Your task to perform on an android device: clear history in the chrome app Image 0: 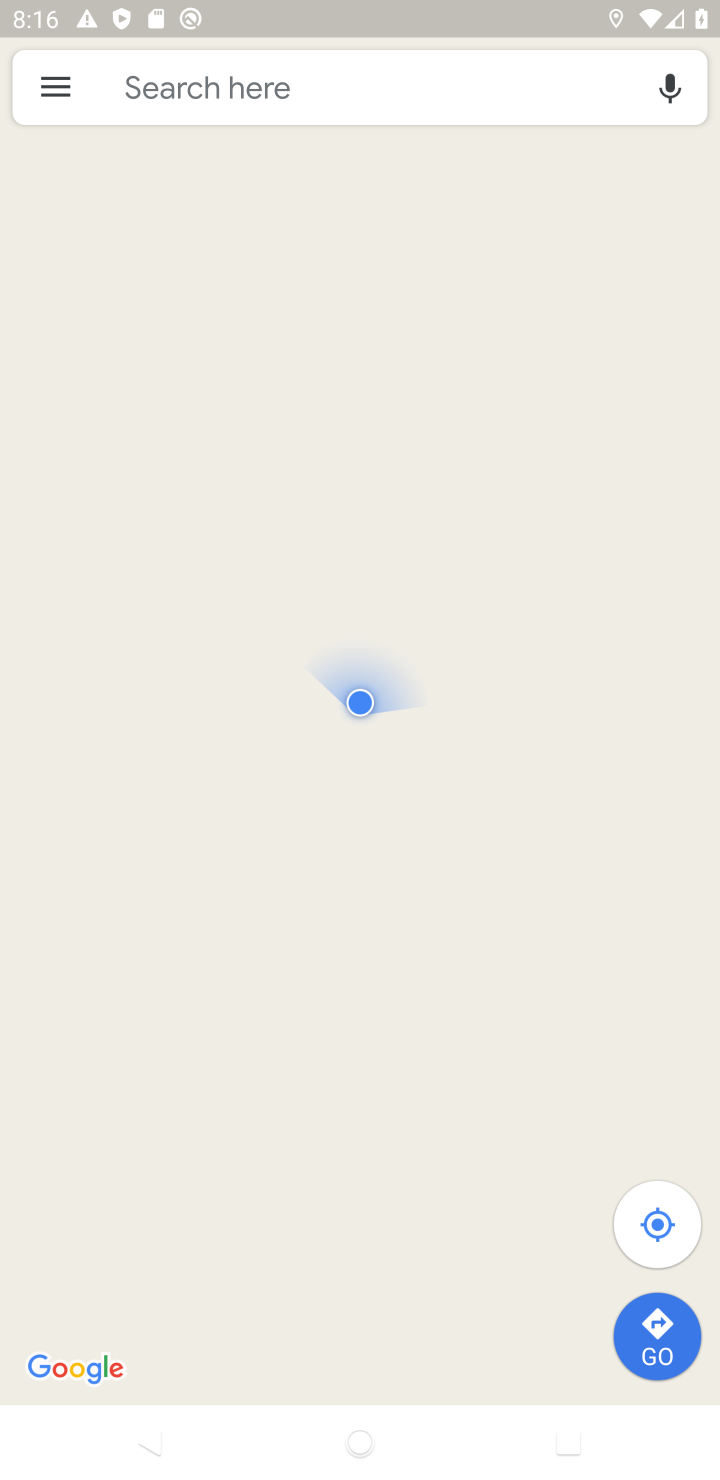
Step 0: press home button
Your task to perform on an android device: clear history in the chrome app Image 1: 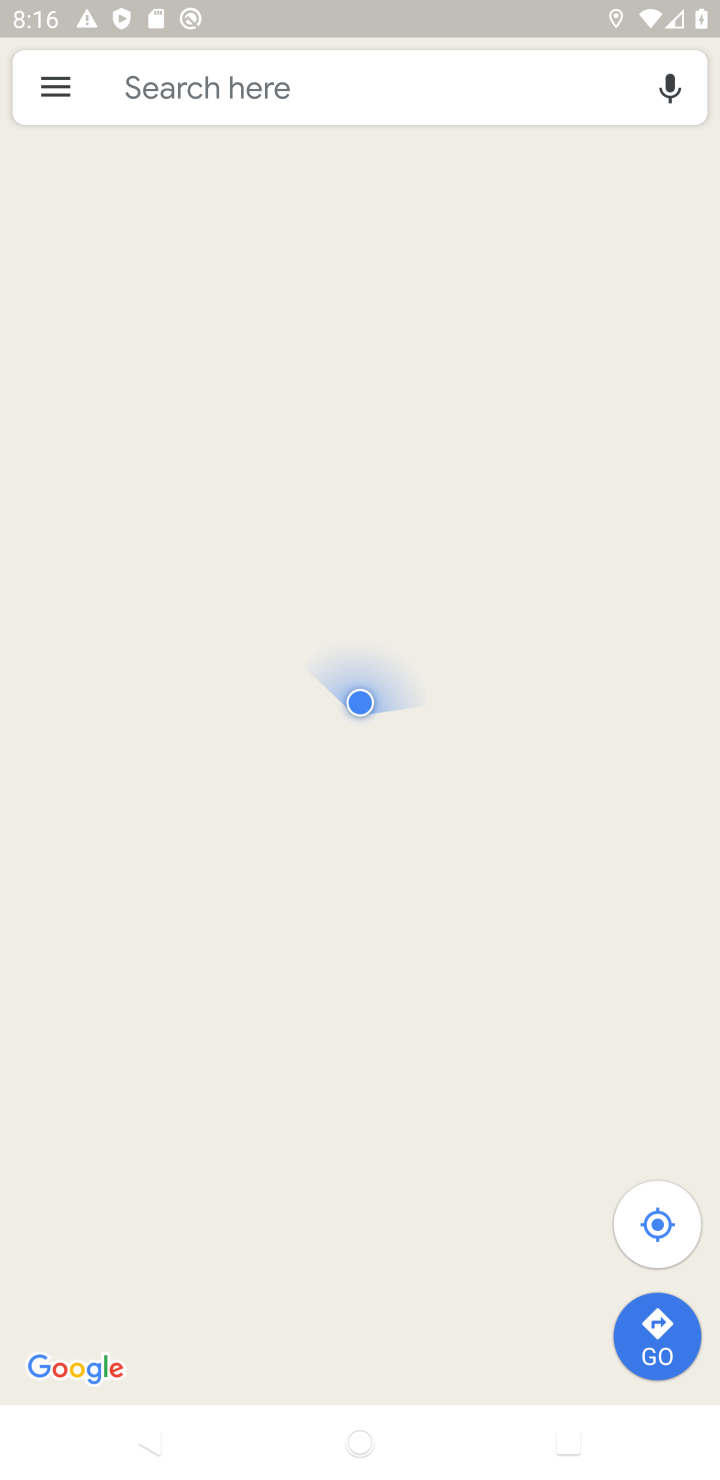
Step 1: press home button
Your task to perform on an android device: clear history in the chrome app Image 2: 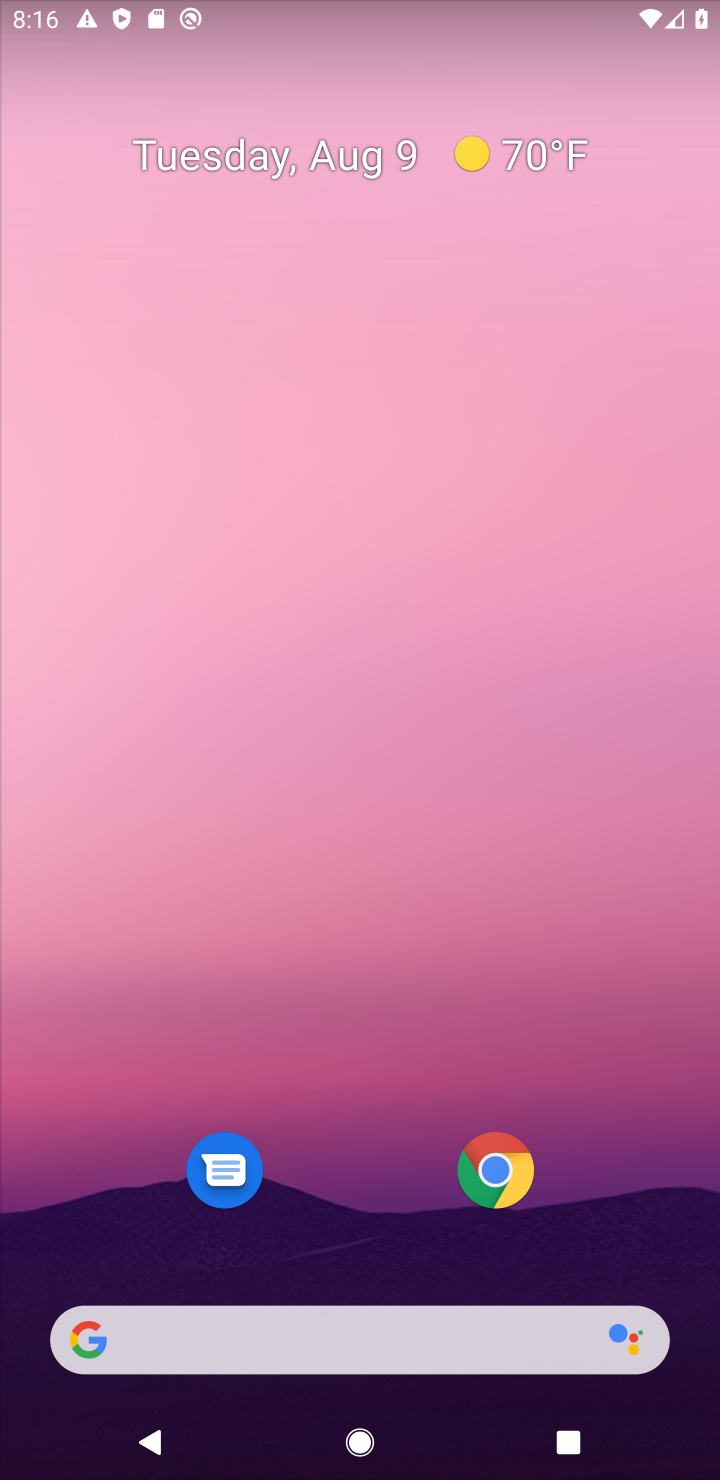
Step 2: drag from (339, 1226) to (557, 359)
Your task to perform on an android device: clear history in the chrome app Image 3: 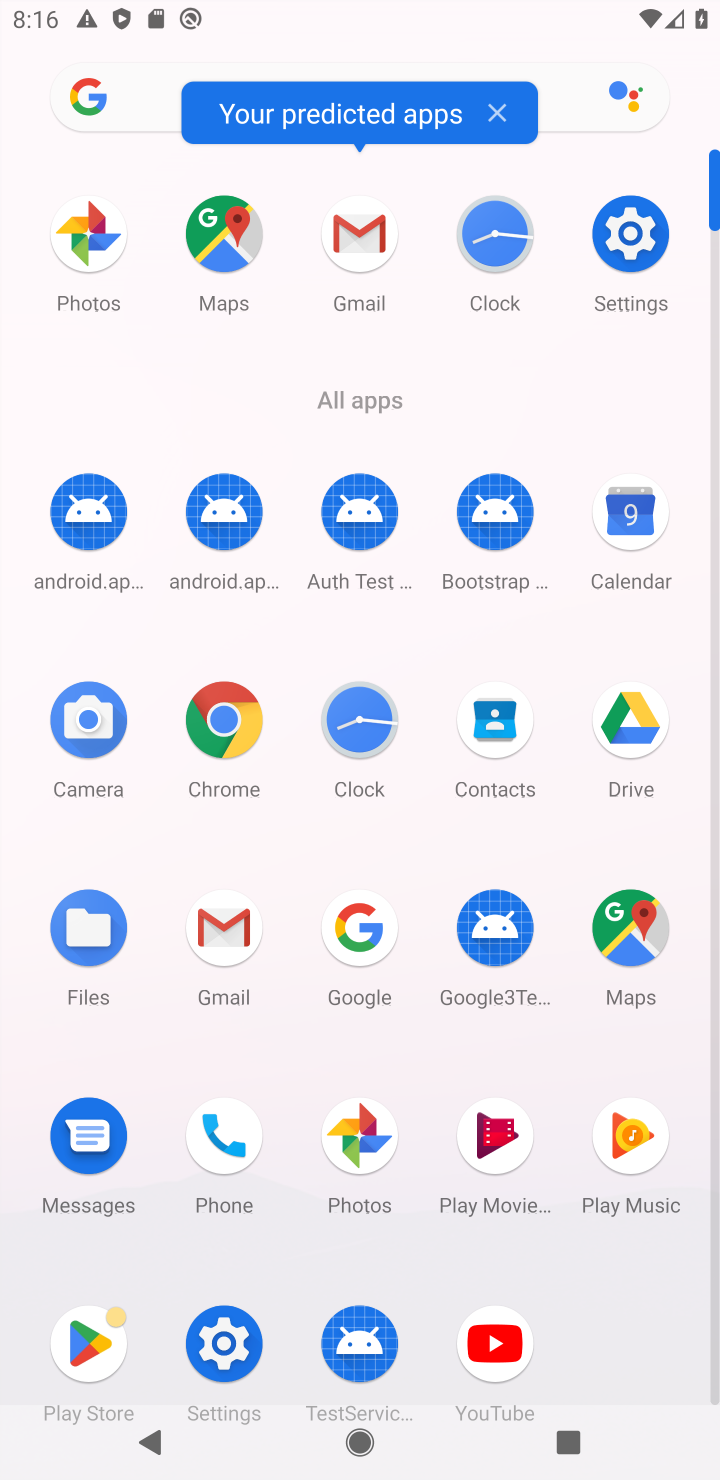
Step 3: click (235, 712)
Your task to perform on an android device: clear history in the chrome app Image 4: 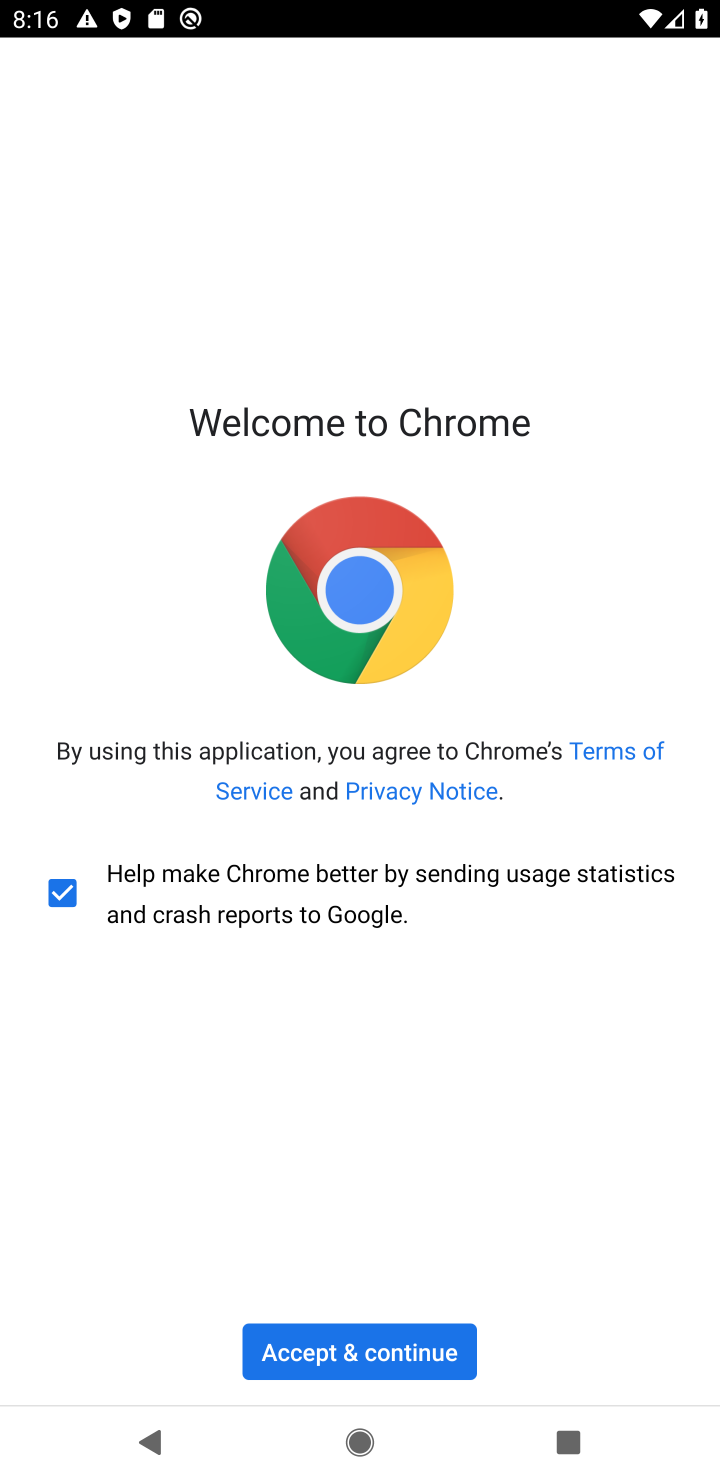
Step 4: click (429, 1339)
Your task to perform on an android device: clear history in the chrome app Image 5: 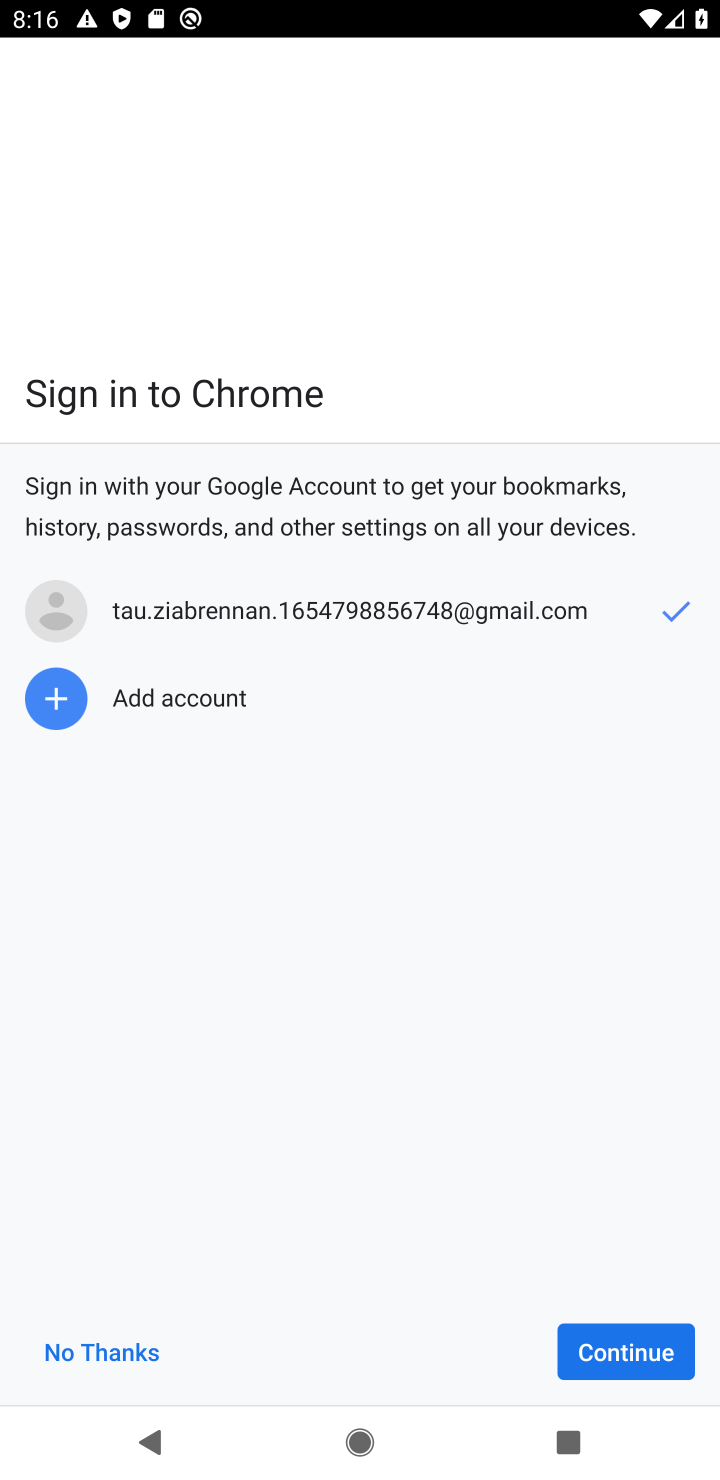
Step 5: click (627, 1347)
Your task to perform on an android device: clear history in the chrome app Image 6: 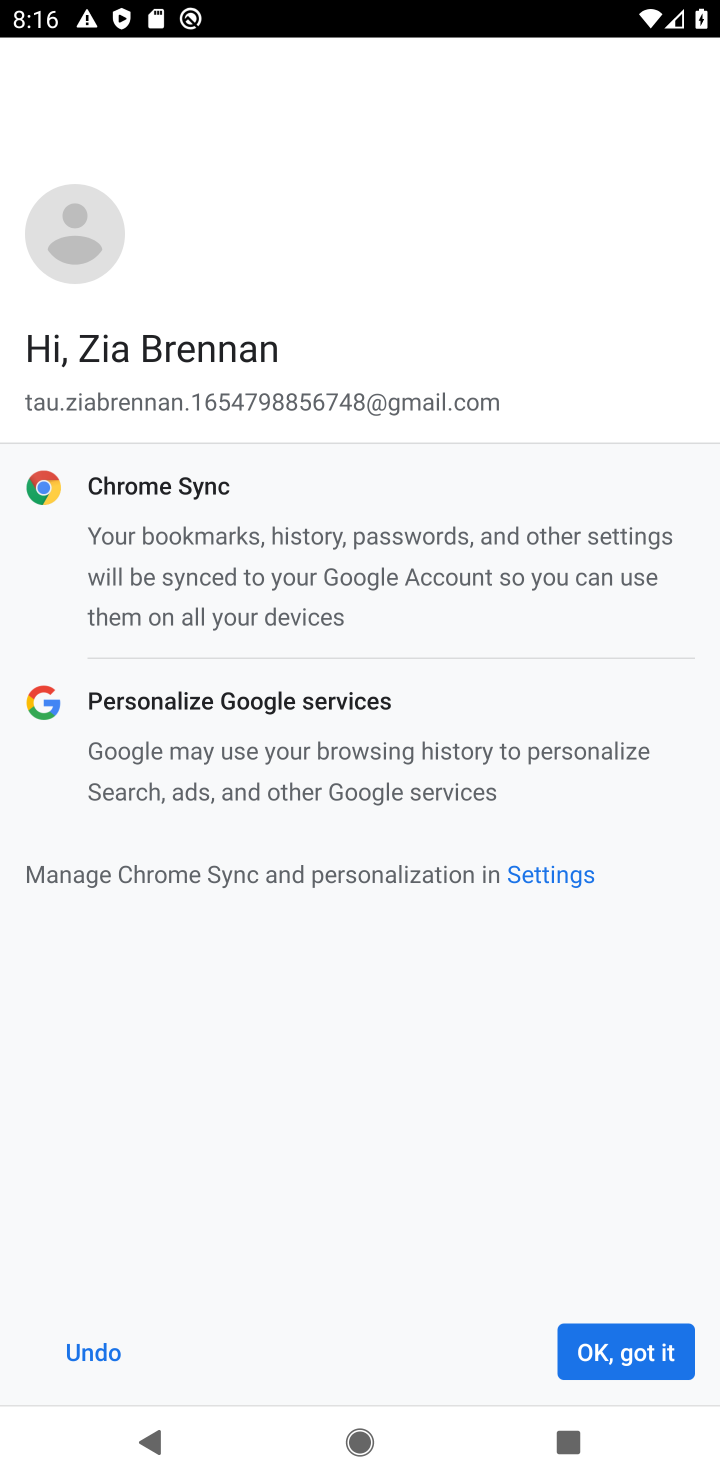
Step 6: click (627, 1347)
Your task to perform on an android device: clear history in the chrome app Image 7: 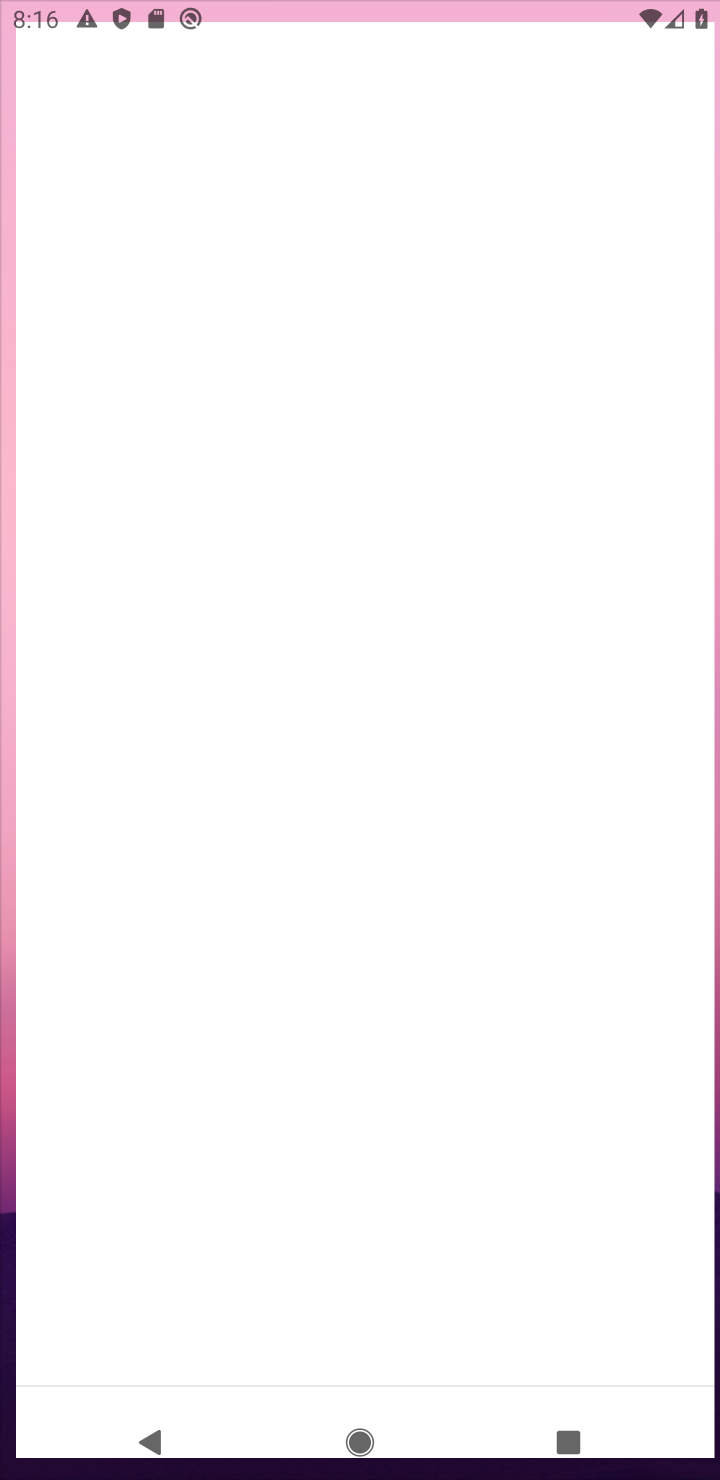
Step 7: click (627, 1347)
Your task to perform on an android device: clear history in the chrome app Image 8: 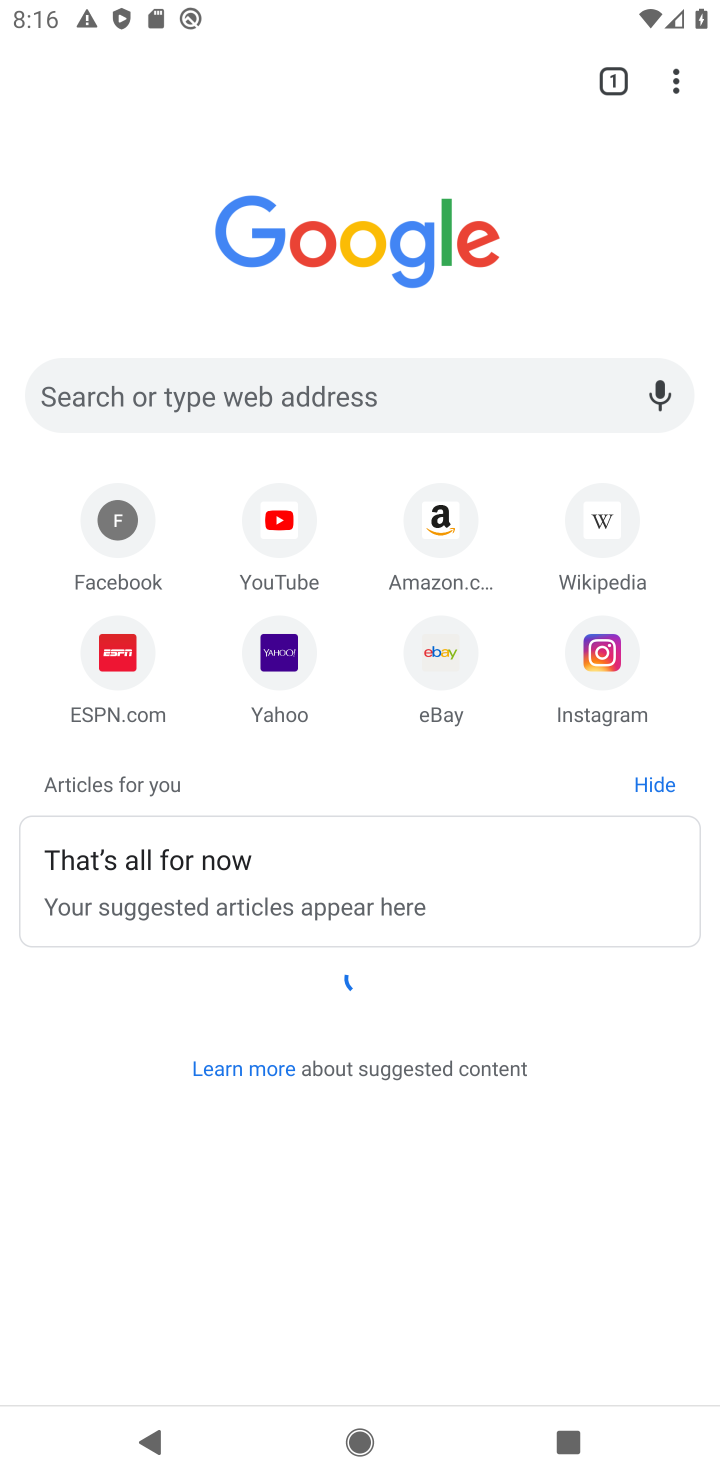
Step 8: drag from (681, 75) to (469, 435)
Your task to perform on an android device: clear history in the chrome app Image 9: 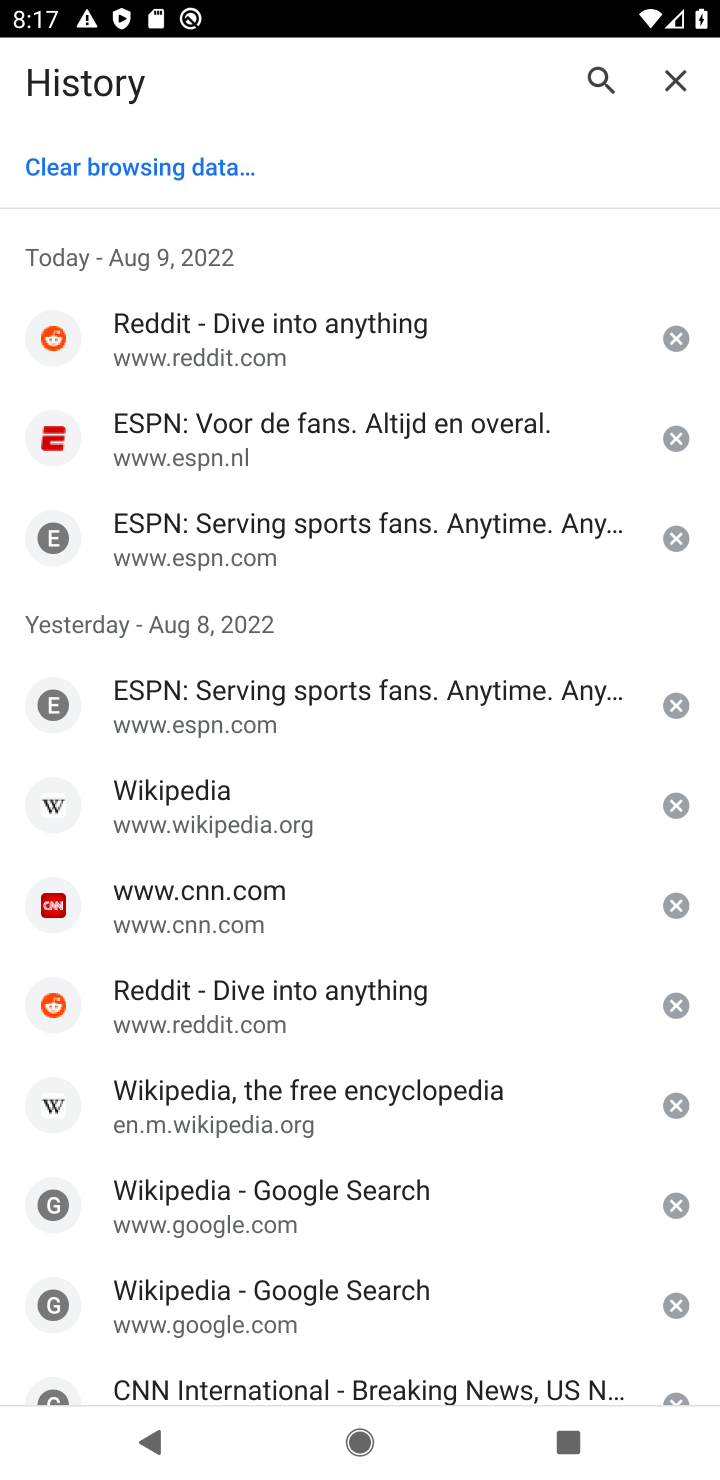
Step 9: click (144, 178)
Your task to perform on an android device: clear history in the chrome app Image 10: 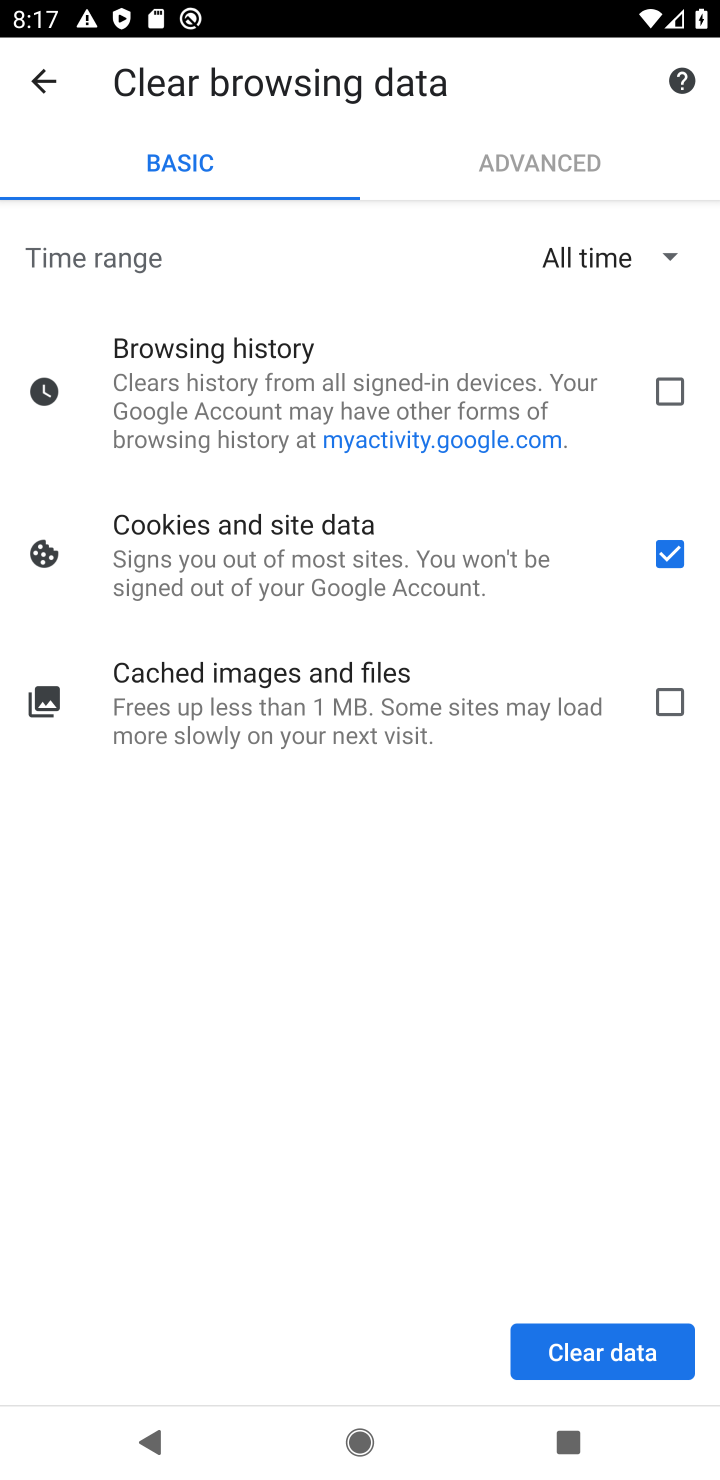
Step 10: click (679, 387)
Your task to perform on an android device: clear history in the chrome app Image 11: 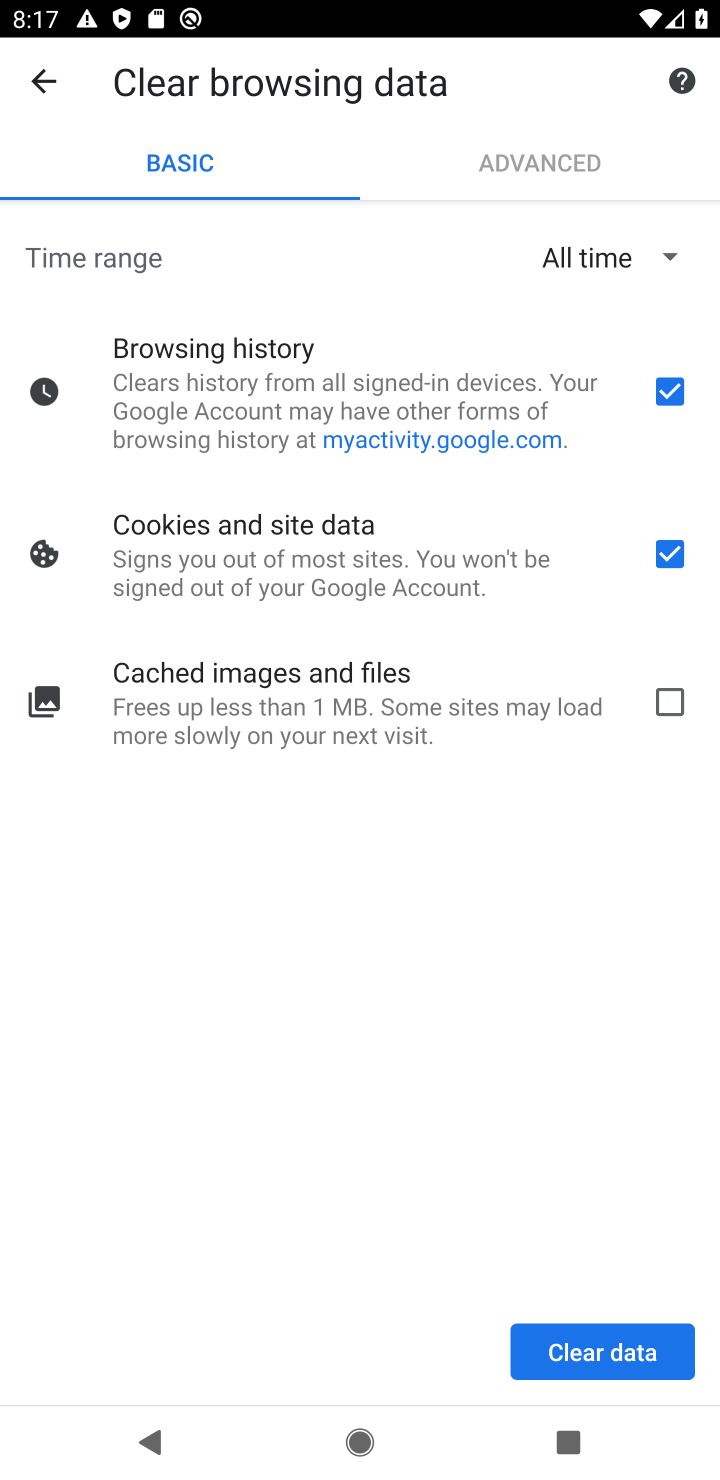
Step 11: click (617, 1338)
Your task to perform on an android device: clear history in the chrome app Image 12: 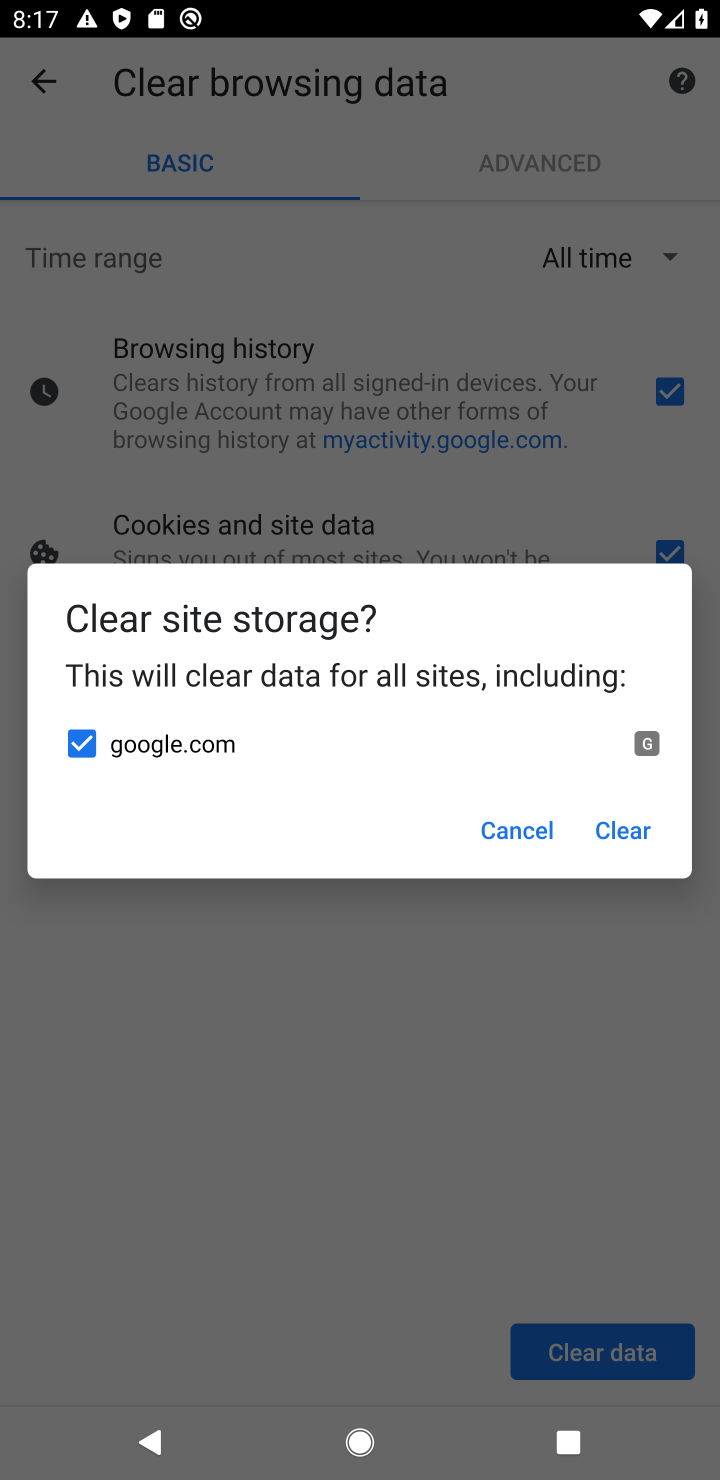
Step 12: click (653, 830)
Your task to perform on an android device: clear history in the chrome app Image 13: 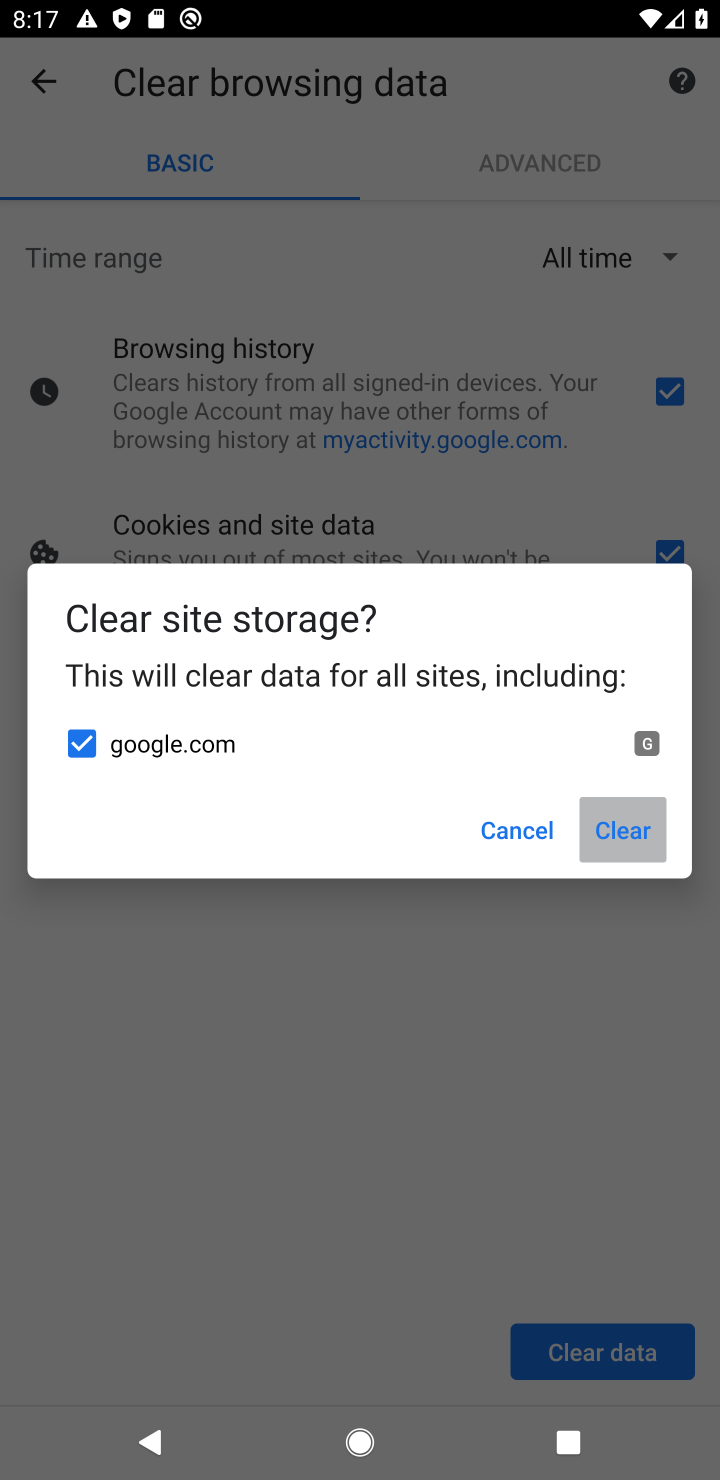
Step 13: click (634, 831)
Your task to perform on an android device: clear history in the chrome app Image 14: 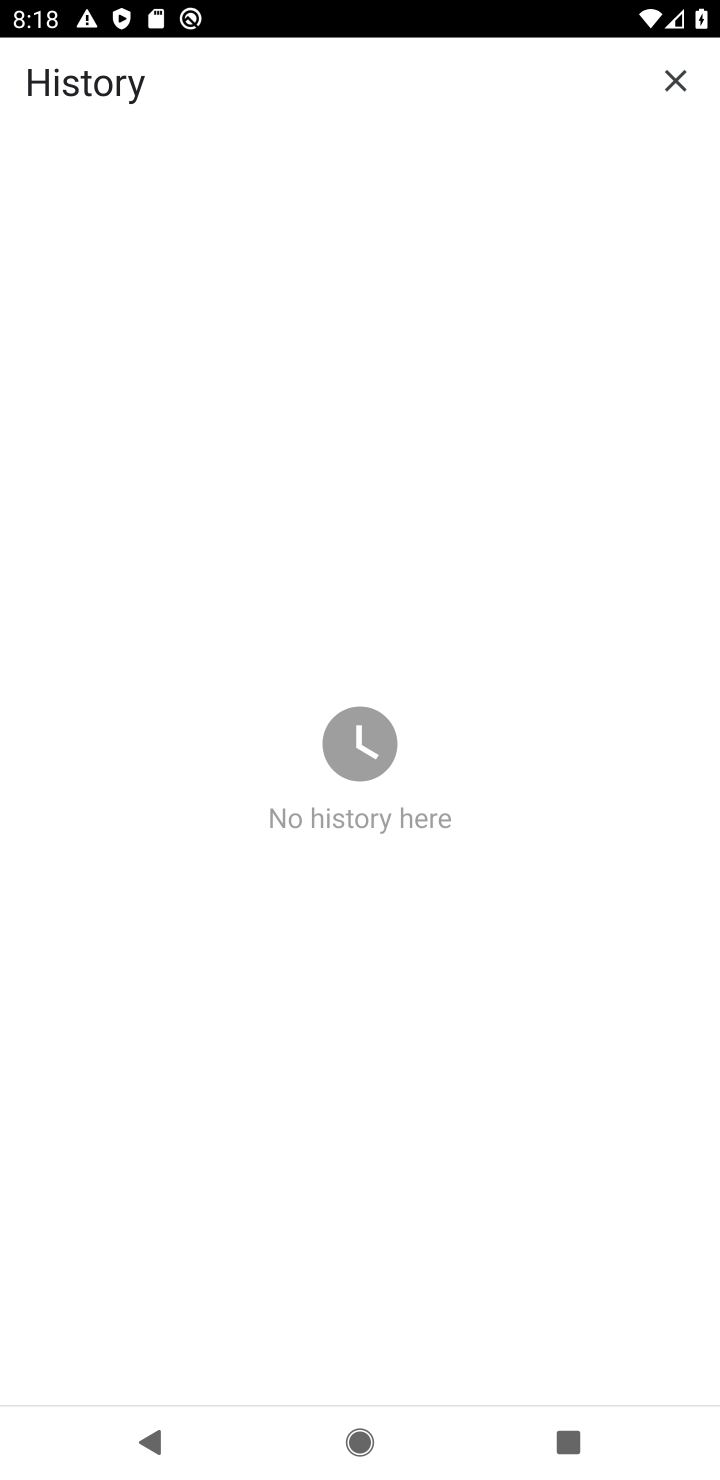
Step 14: task complete